Your task to perform on an android device: check storage Image 0: 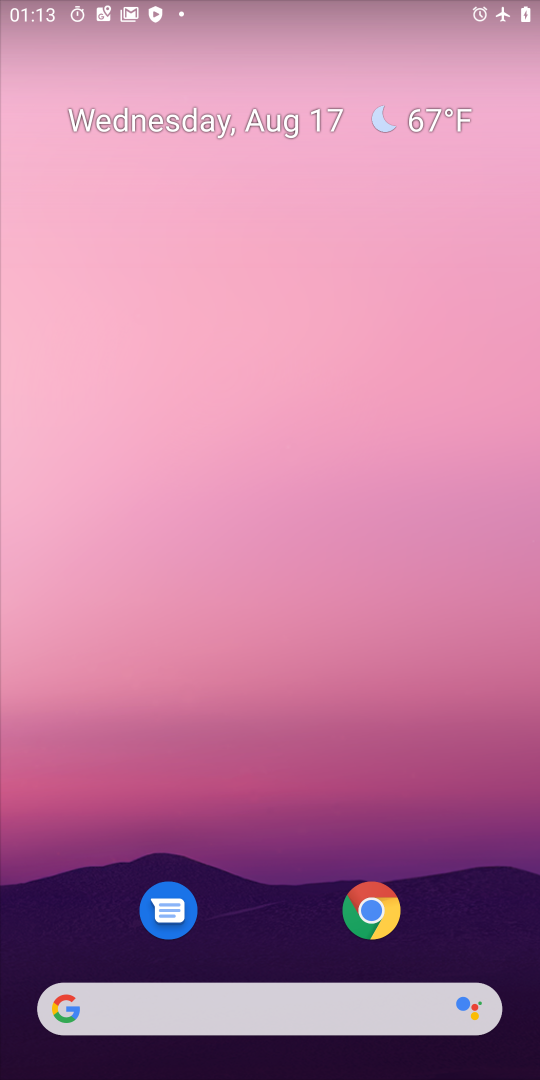
Step 0: drag from (261, 885) to (523, 342)
Your task to perform on an android device: check storage Image 1: 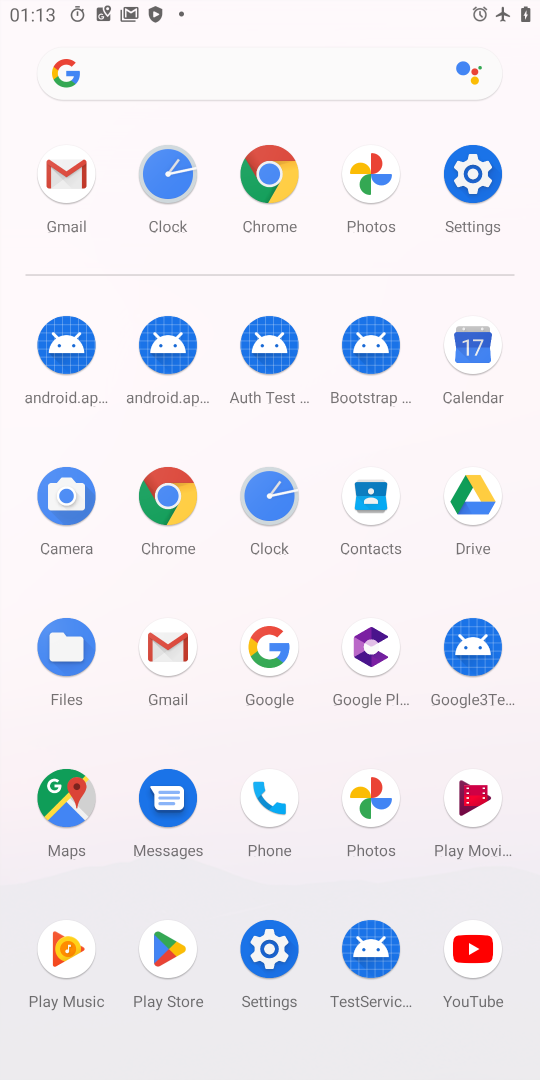
Step 1: click (269, 945)
Your task to perform on an android device: check storage Image 2: 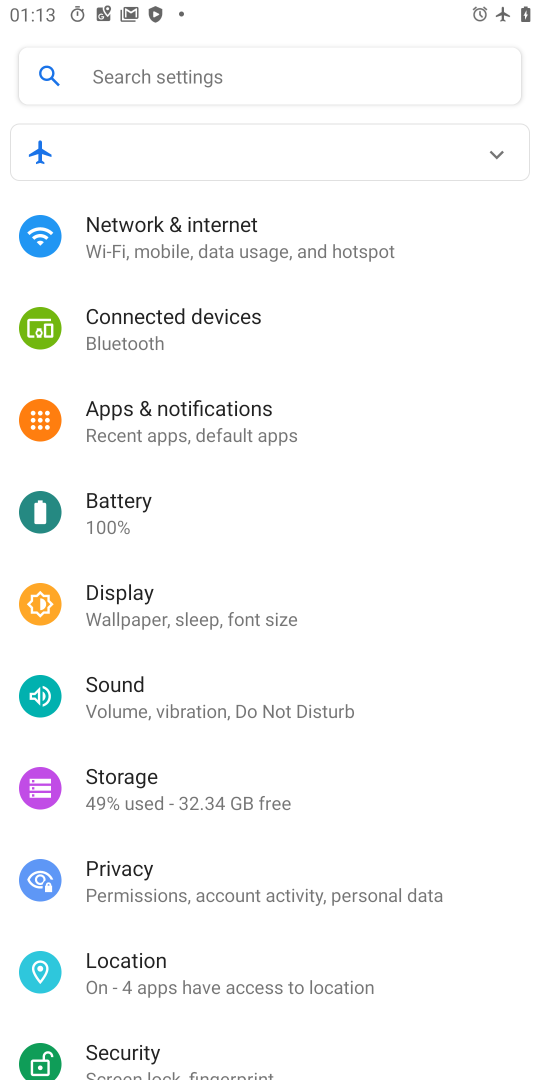
Step 2: drag from (341, 911) to (528, 447)
Your task to perform on an android device: check storage Image 3: 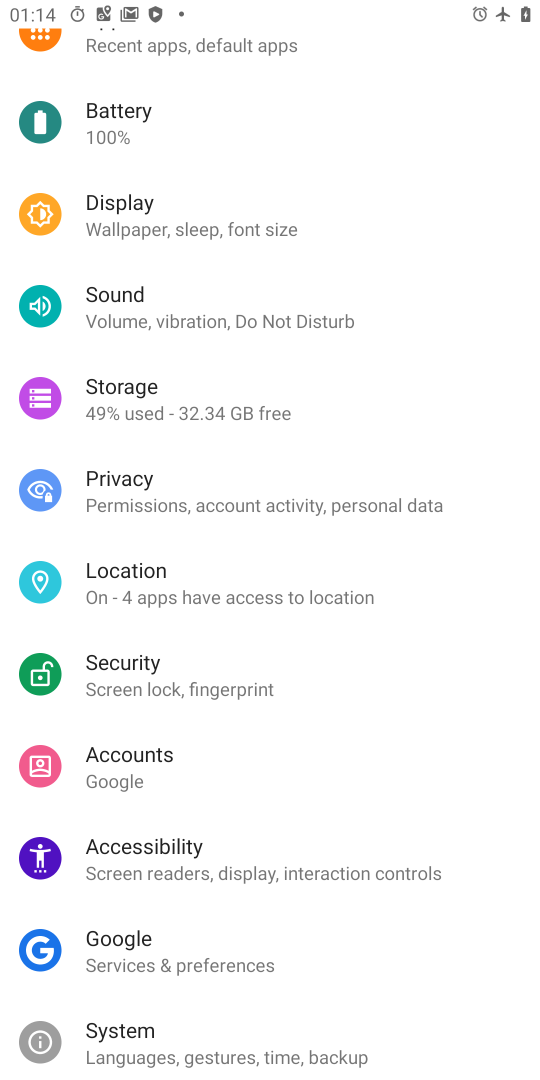
Step 3: click (265, 424)
Your task to perform on an android device: check storage Image 4: 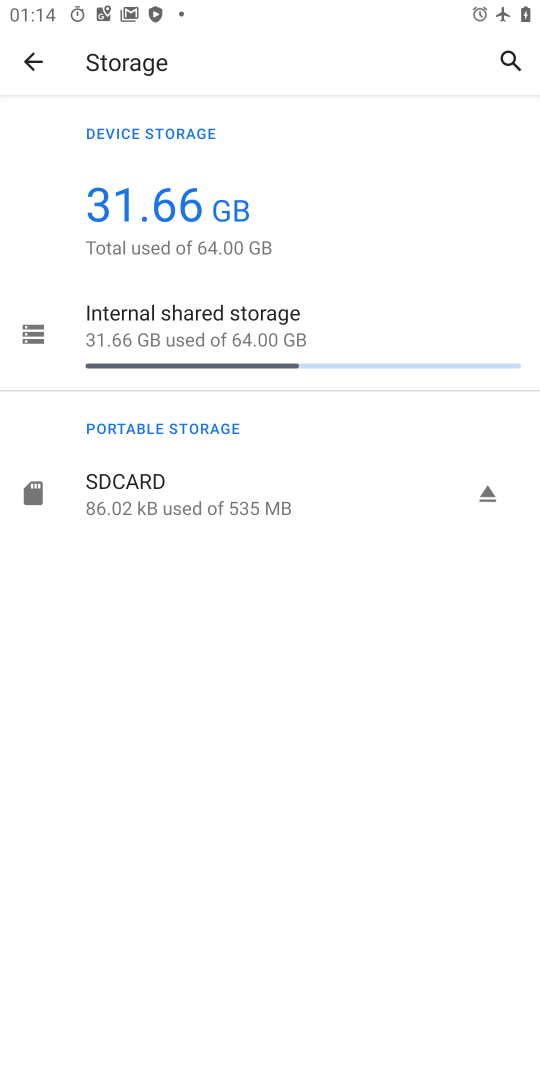
Step 4: task complete